Your task to perform on an android device: When is my next meeting? Image 0: 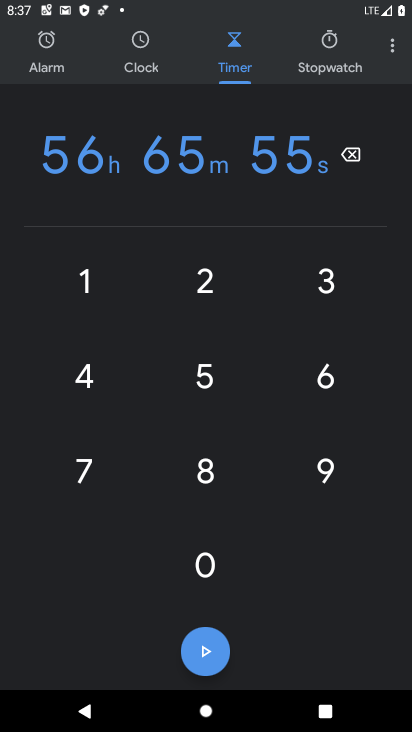
Step 0: press home button
Your task to perform on an android device: When is my next meeting? Image 1: 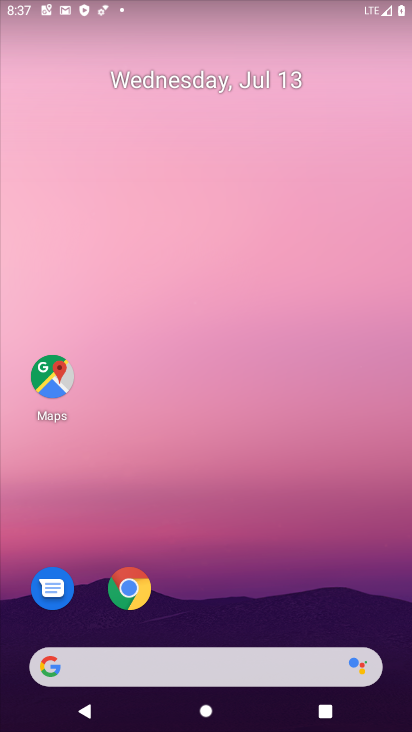
Step 1: drag from (219, 618) to (210, 99)
Your task to perform on an android device: When is my next meeting? Image 2: 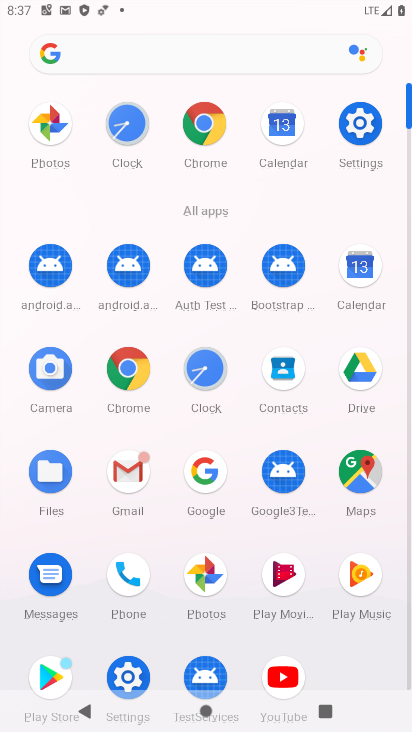
Step 2: click (363, 256)
Your task to perform on an android device: When is my next meeting? Image 3: 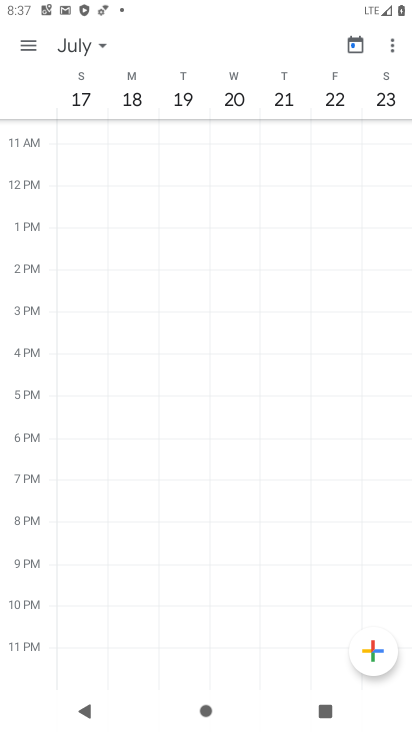
Step 3: drag from (73, 85) to (368, 118)
Your task to perform on an android device: When is my next meeting? Image 4: 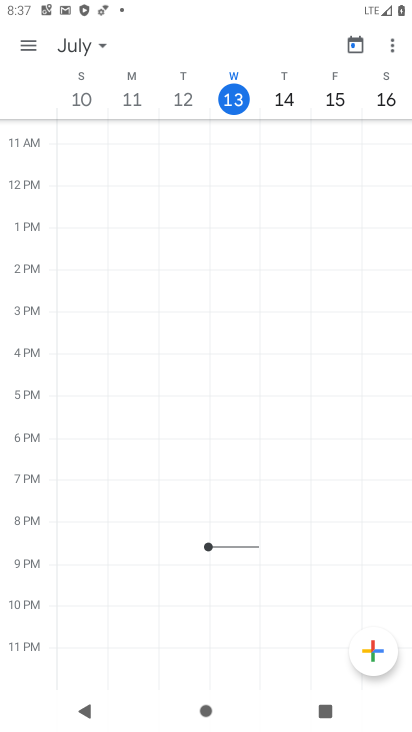
Step 4: click (334, 97)
Your task to perform on an android device: When is my next meeting? Image 5: 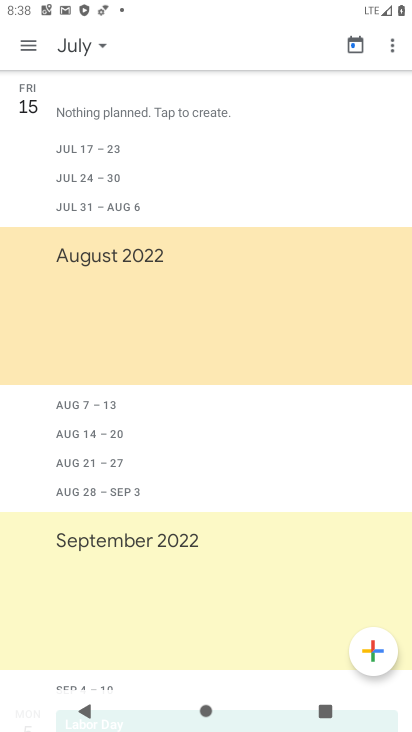
Step 5: task complete